Your task to perform on an android device: Open Chrome and go to the settings page Image 0: 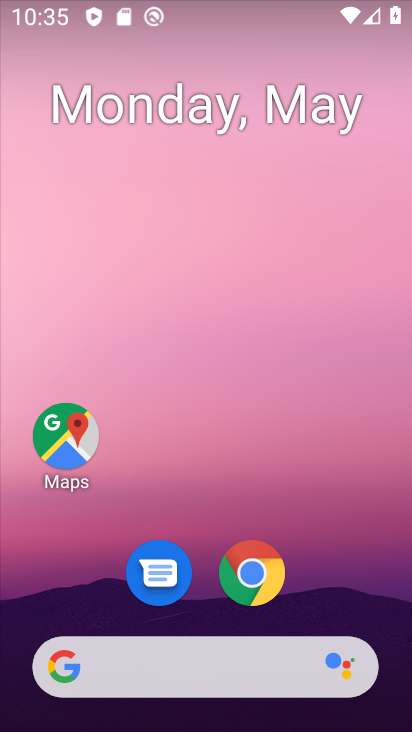
Step 0: click (262, 578)
Your task to perform on an android device: Open Chrome and go to the settings page Image 1: 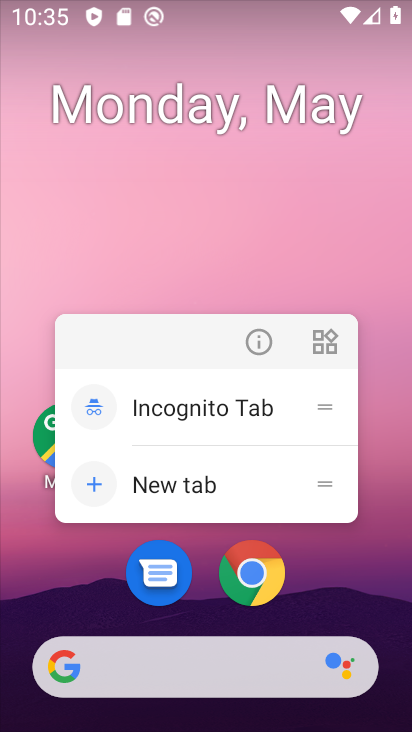
Step 1: click (263, 574)
Your task to perform on an android device: Open Chrome and go to the settings page Image 2: 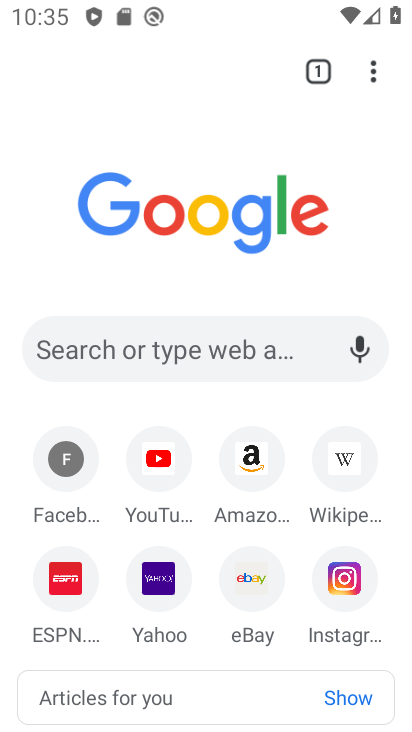
Step 2: click (371, 57)
Your task to perform on an android device: Open Chrome and go to the settings page Image 3: 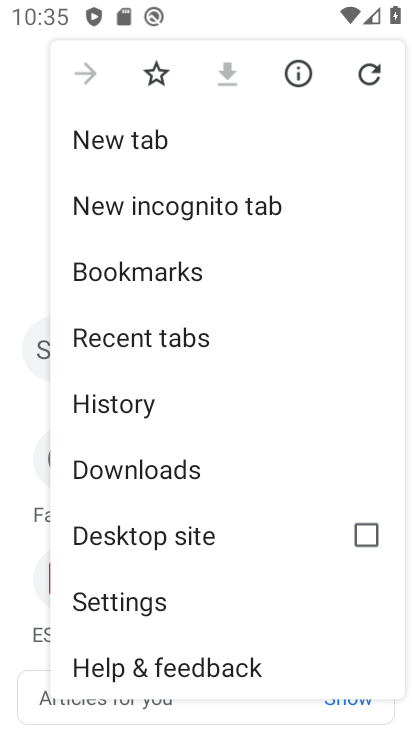
Step 3: click (221, 597)
Your task to perform on an android device: Open Chrome and go to the settings page Image 4: 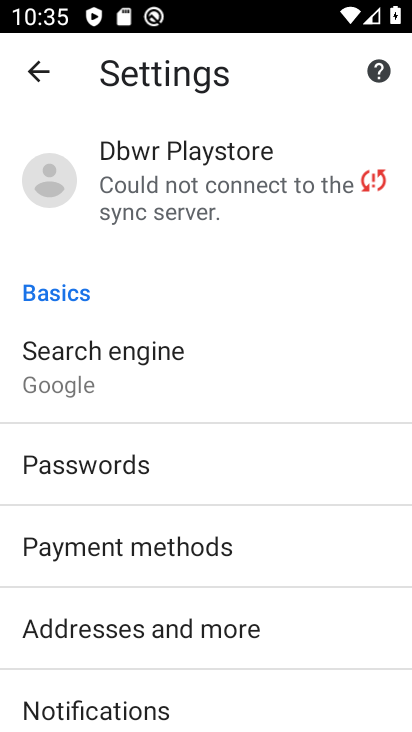
Step 4: task complete